Your task to perform on an android device: turn vacation reply on in the gmail app Image 0: 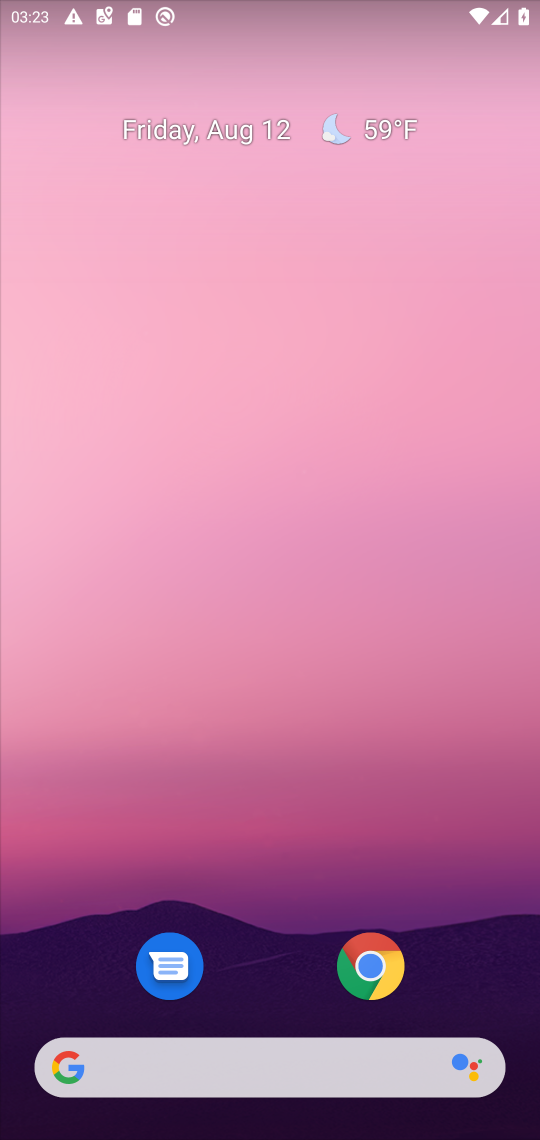
Step 0: press home button
Your task to perform on an android device: turn vacation reply on in the gmail app Image 1: 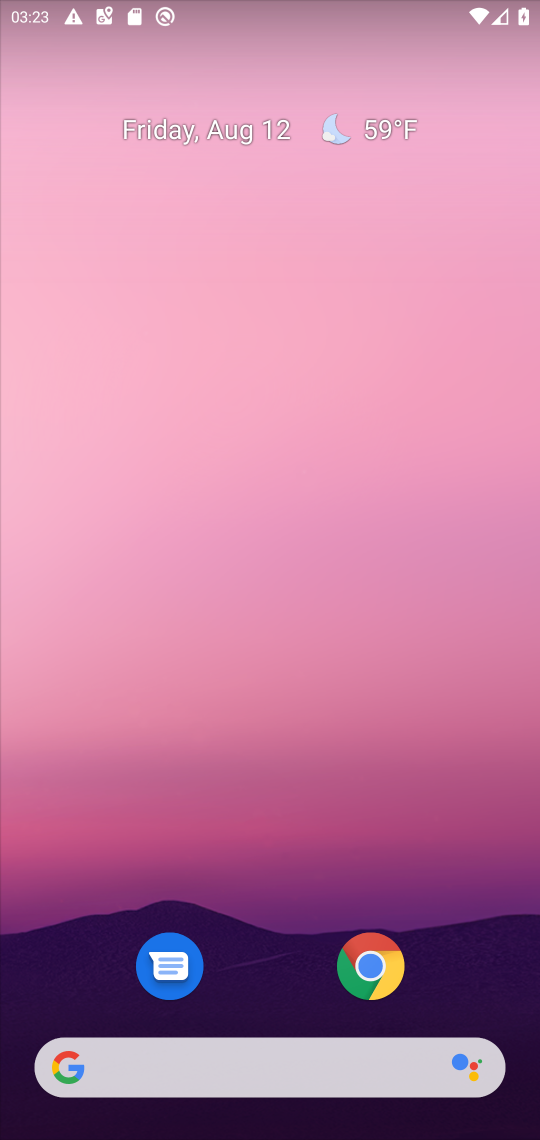
Step 1: drag from (238, 838) to (306, 50)
Your task to perform on an android device: turn vacation reply on in the gmail app Image 2: 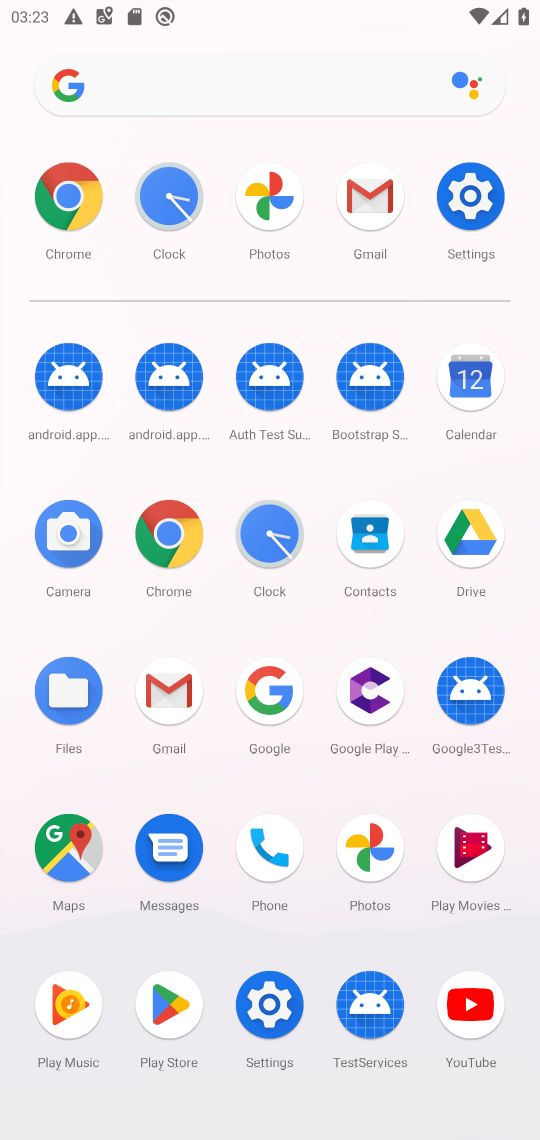
Step 2: click (165, 687)
Your task to perform on an android device: turn vacation reply on in the gmail app Image 3: 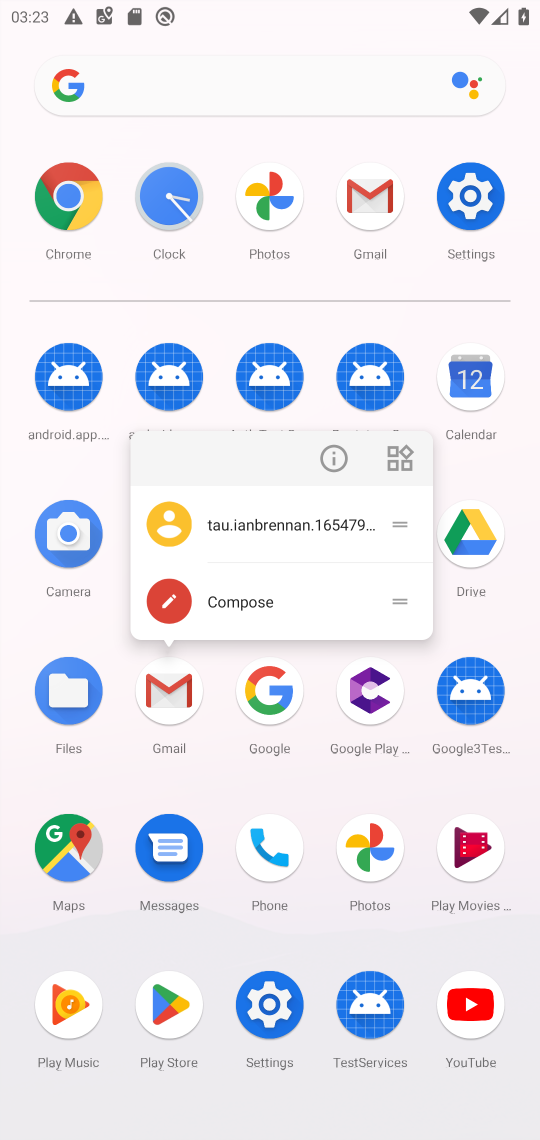
Step 3: click (165, 687)
Your task to perform on an android device: turn vacation reply on in the gmail app Image 4: 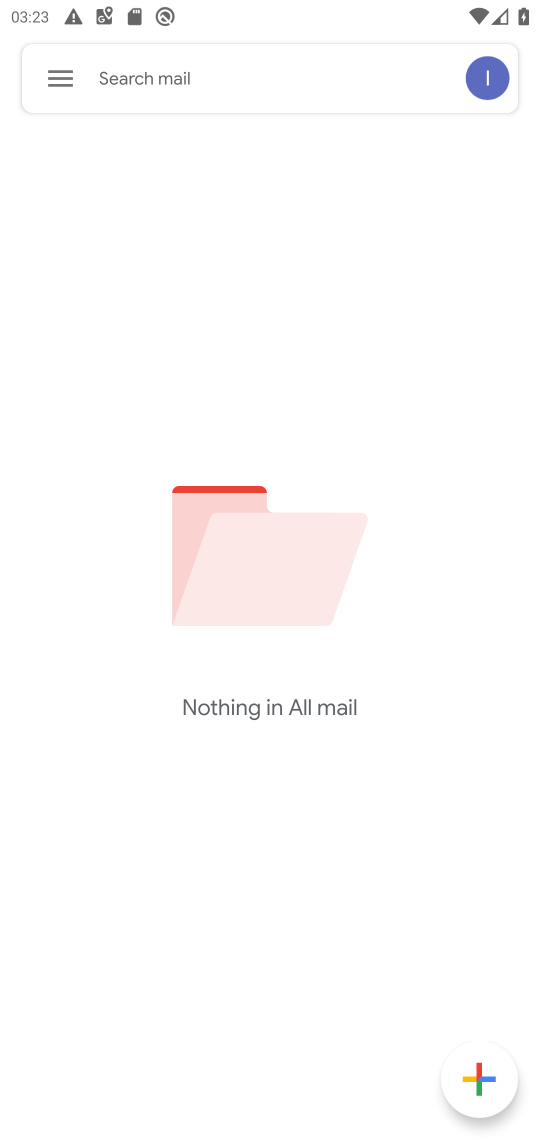
Step 4: click (58, 73)
Your task to perform on an android device: turn vacation reply on in the gmail app Image 5: 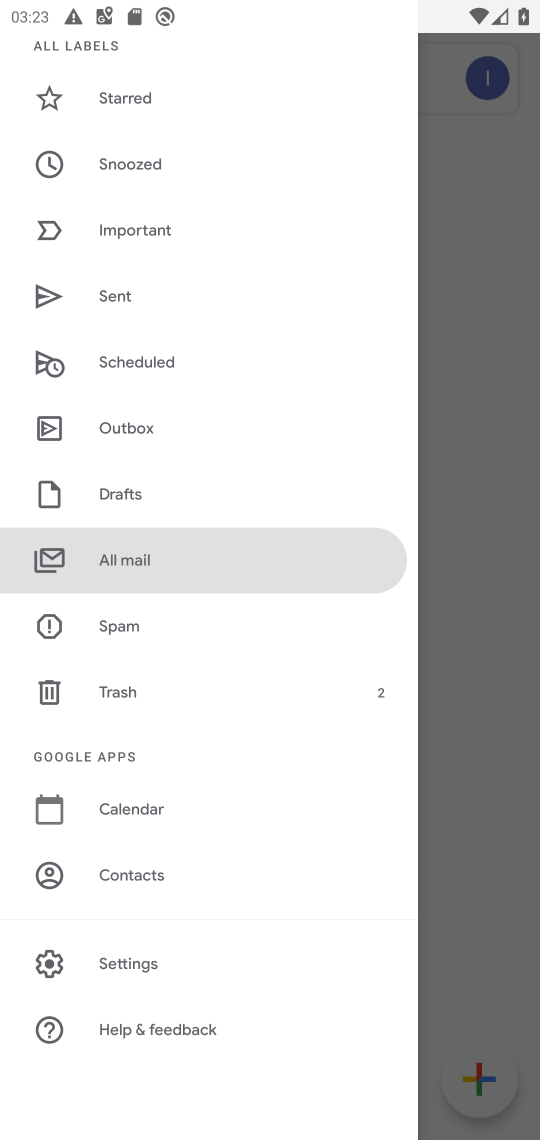
Step 5: click (151, 966)
Your task to perform on an android device: turn vacation reply on in the gmail app Image 6: 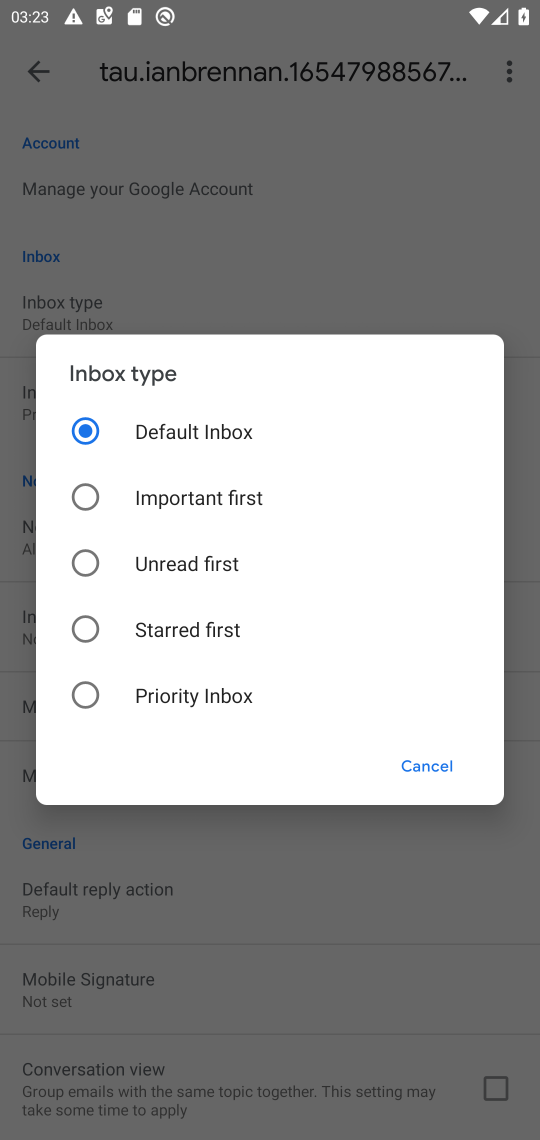
Step 6: click (435, 761)
Your task to perform on an android device: turn vacation reply on in the gmail app Image 7: 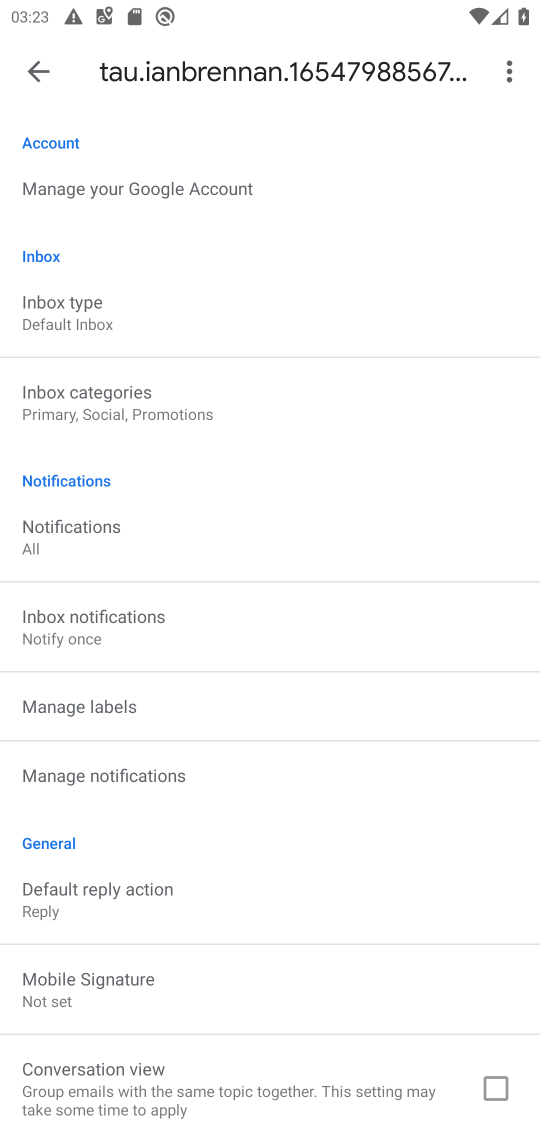
Step 7: drag from (277, 953) to (370, 7)
Your task to perform on an android device: turn vacation reply on in the gmail app Image 8: 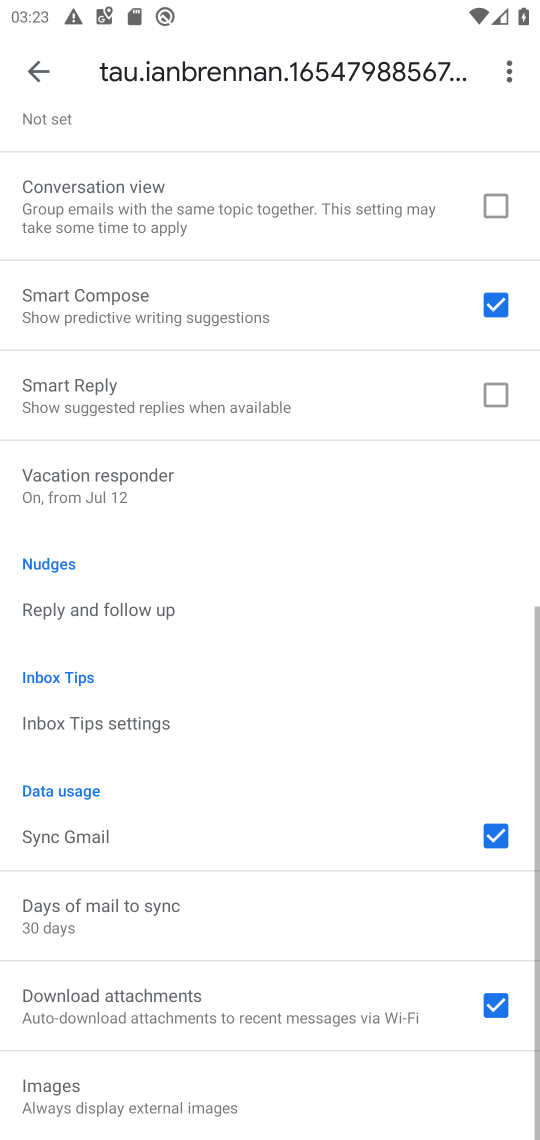
Step 8: drag from (254, 903) to (290, 485)
Your task to perform on an android device: turn vacation reply on in the gmail app Image 9: 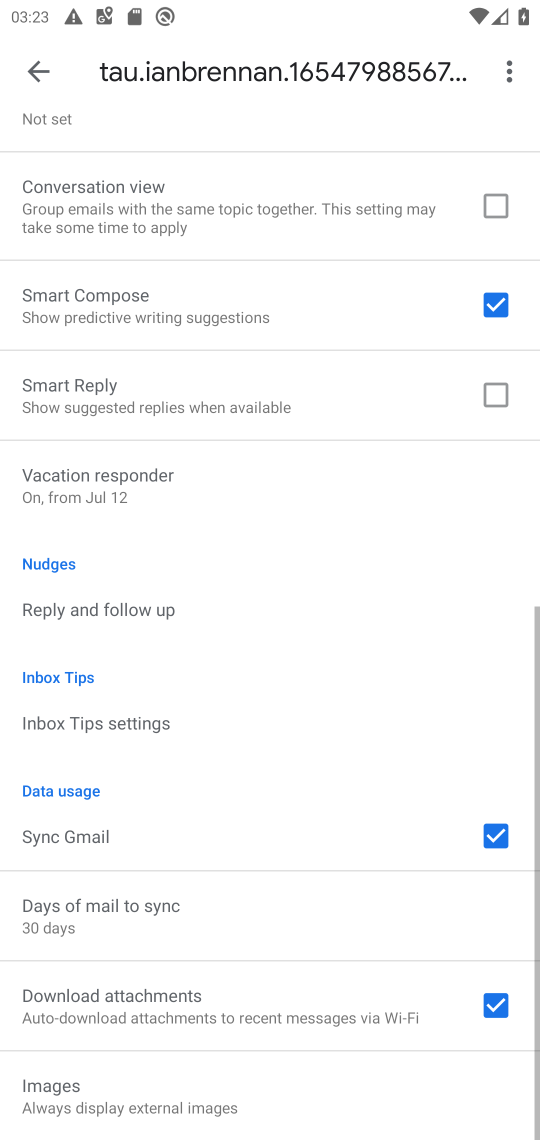
Step 9: click (129, 484)
Your task to perform on an android device: turn vacation reply on in the gmail app Image 10: 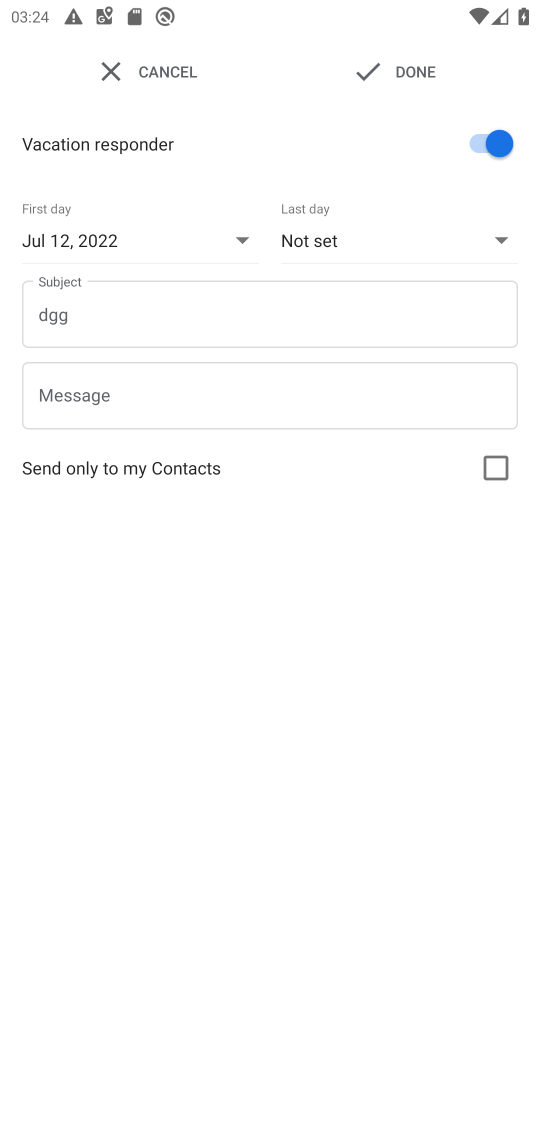
Step 10: task complete